Your task to perform on an android device: Look up the best rated gaming chair on Best Buy Image 0: 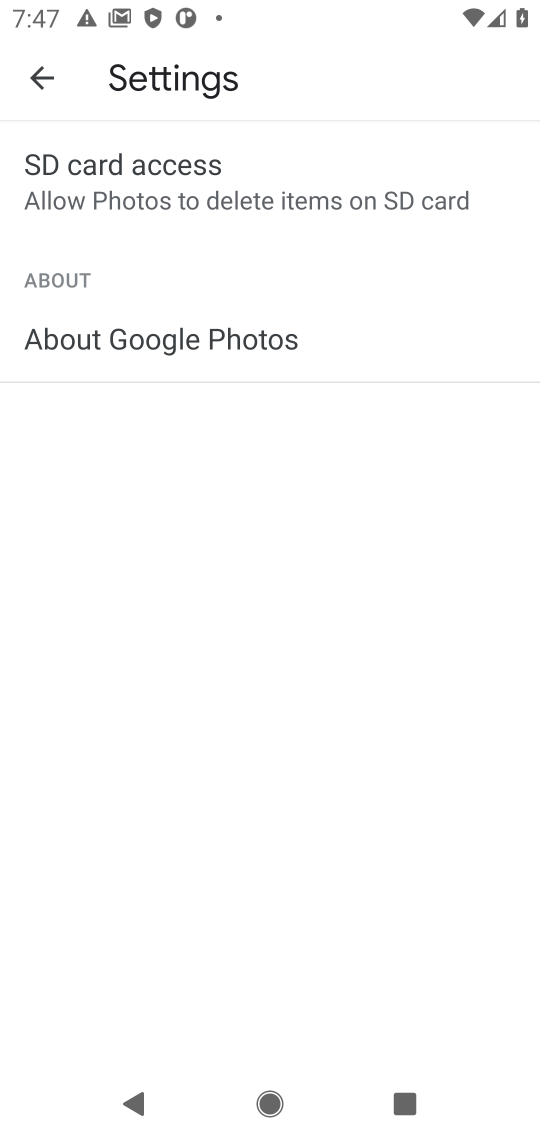
Step 0: press home button
Your task to perform on an android device: Look up the best rated gaming chair on Best Buy Image 1: 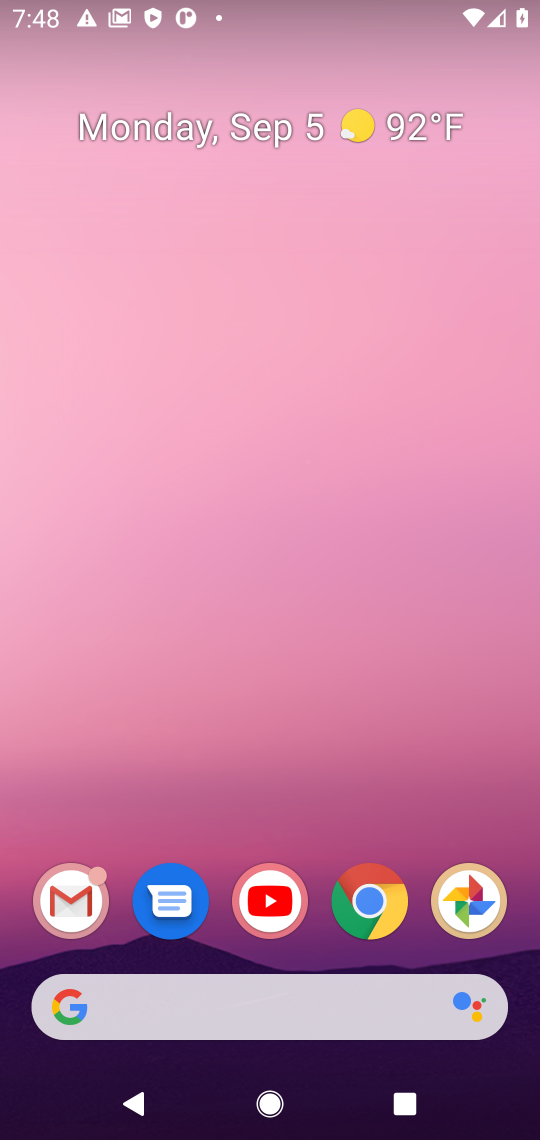
Step 1: click (345, 905)
Your task to perform on an android device: Look up the best rated gaming chair on Best Buy Image 2: 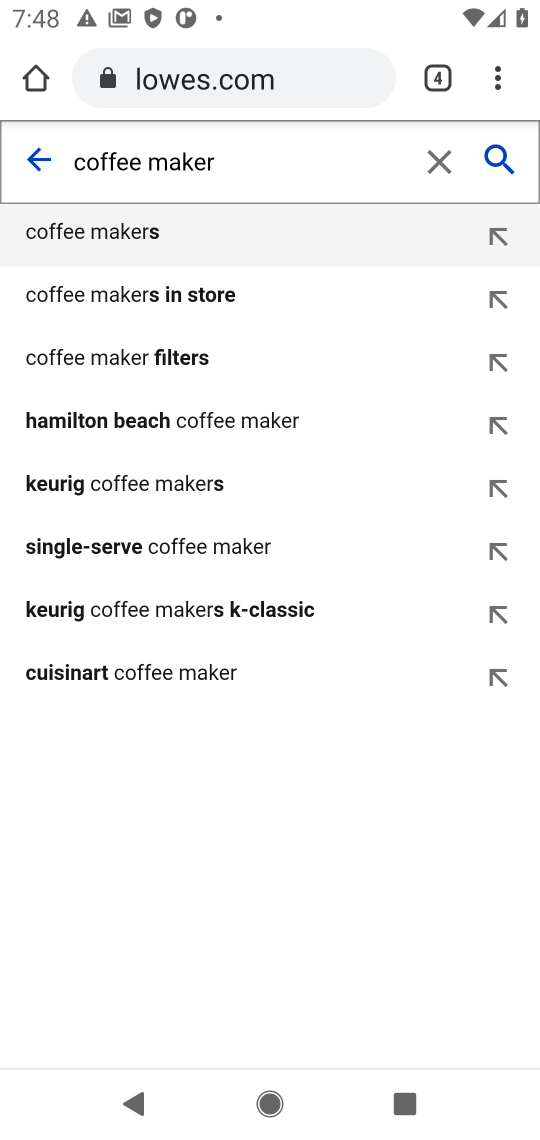
Step 2: click (376, 79)
Your task to perform on an android device: Look up the best rated gaming chair on Best Buy Image 3: 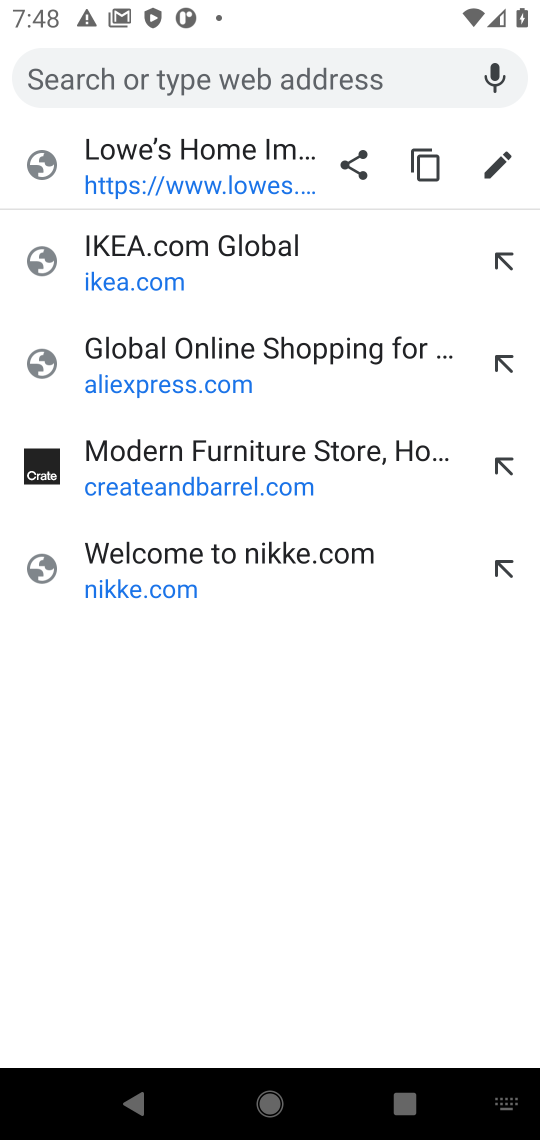
Step 3: type "best buy"
Your task to perform on an android device: Look up the best rated gaming chair on Best Buy Image 4: 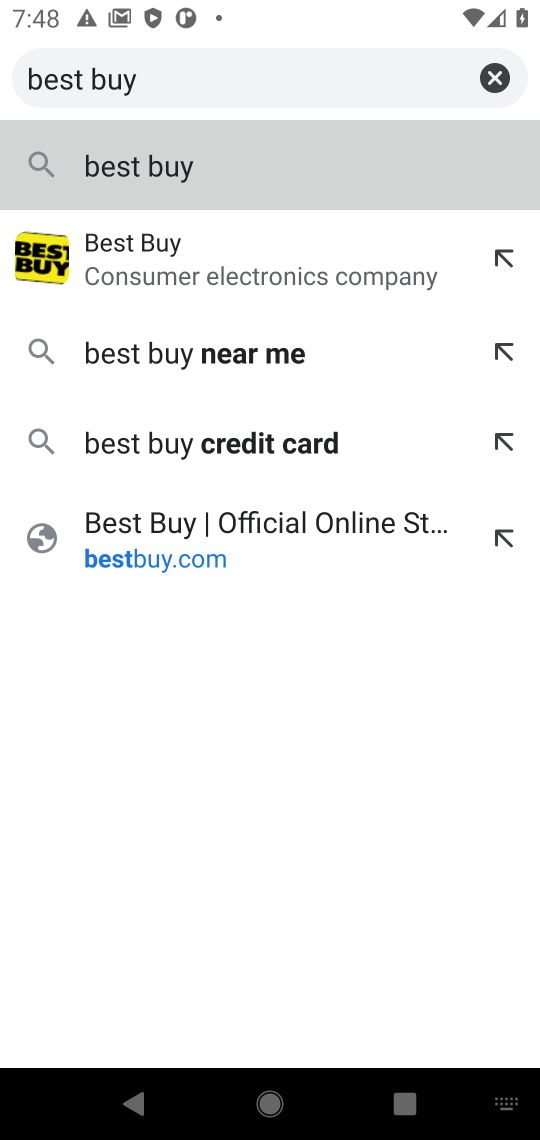
Step 4: click (216, 257)
Your task to perform on an android device: Look up the best rated gaming chair on Best Buy Image 5: 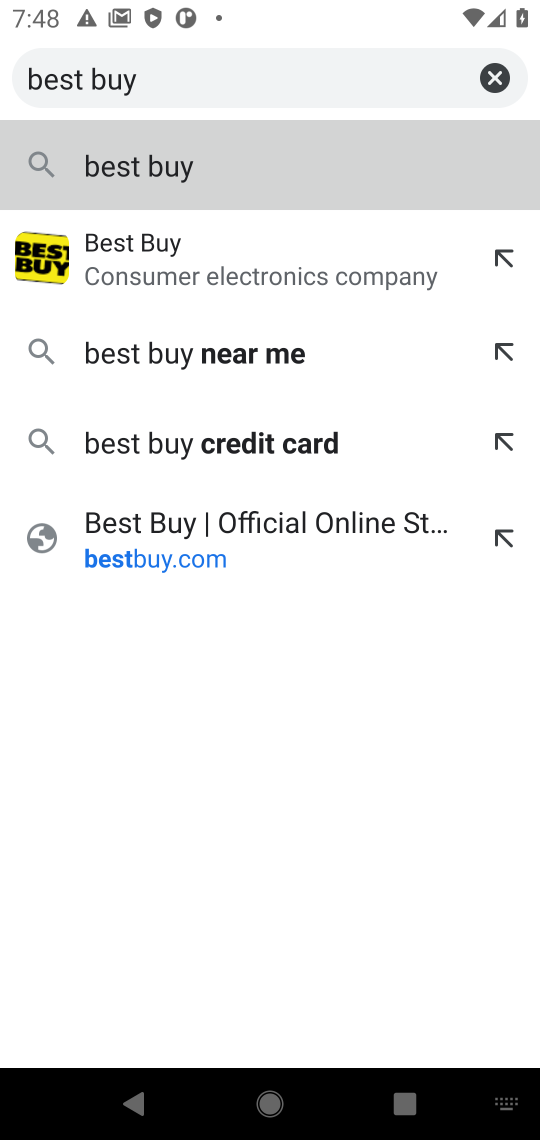
Step 5: click (216, 257)
Your task to perform on an android device: Look up the best rated gaming chair on Best Buy Image 6: 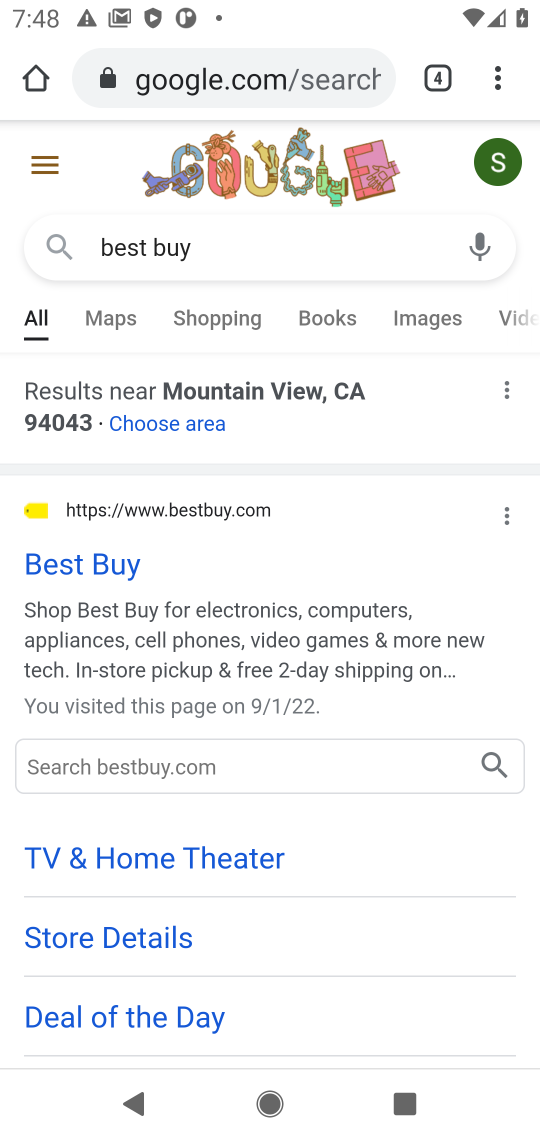
Step 6: click (135, 550)
Your task to perform on an android device: Look up the best rated gaming chair on Best Buy Image 7: 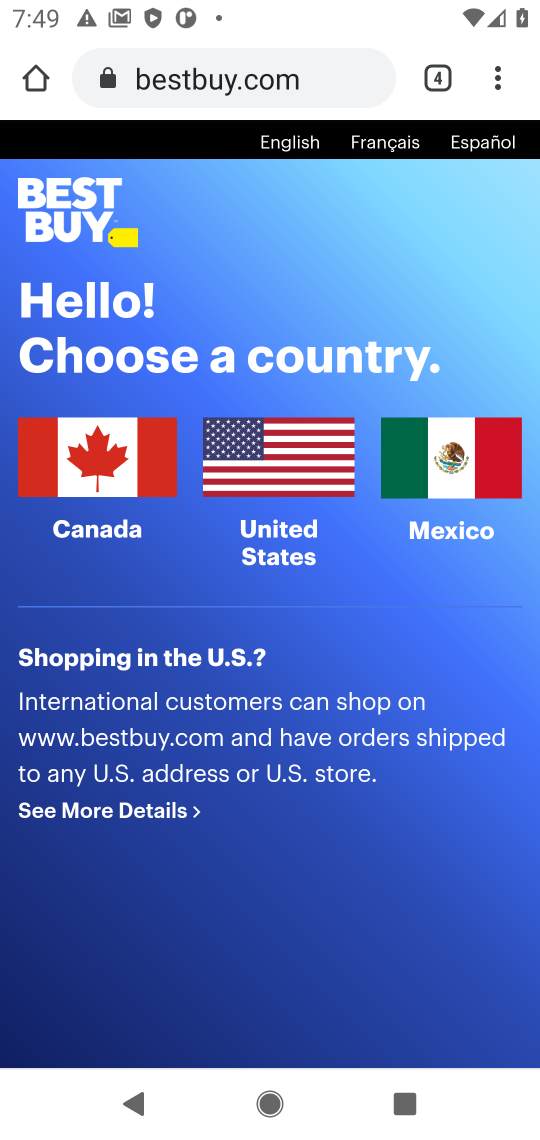
Step 7: click (290, 465)
Your task to perform on an android device: Look up the best rated gaming chair on Best Buy Image 8: 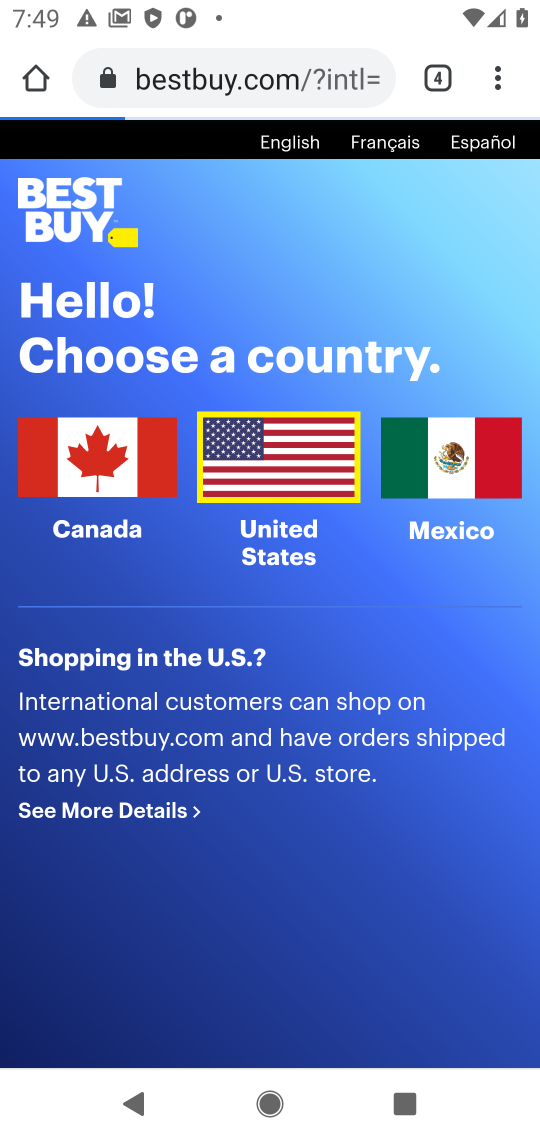
Step 8: click (283, 455)
Your task to perform on an android device: Look up the best rated gaming chair on Best Buy Image 9: 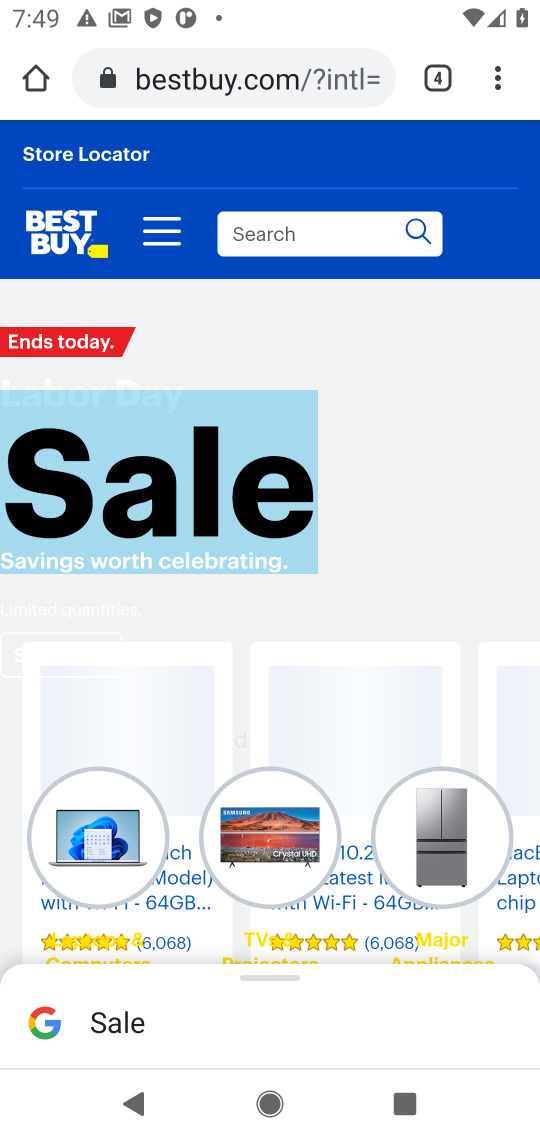
Step 9: click (309, 229)
Your task to perform on an android device: Look up the best rated gaming chair on Best Buy Image 10: 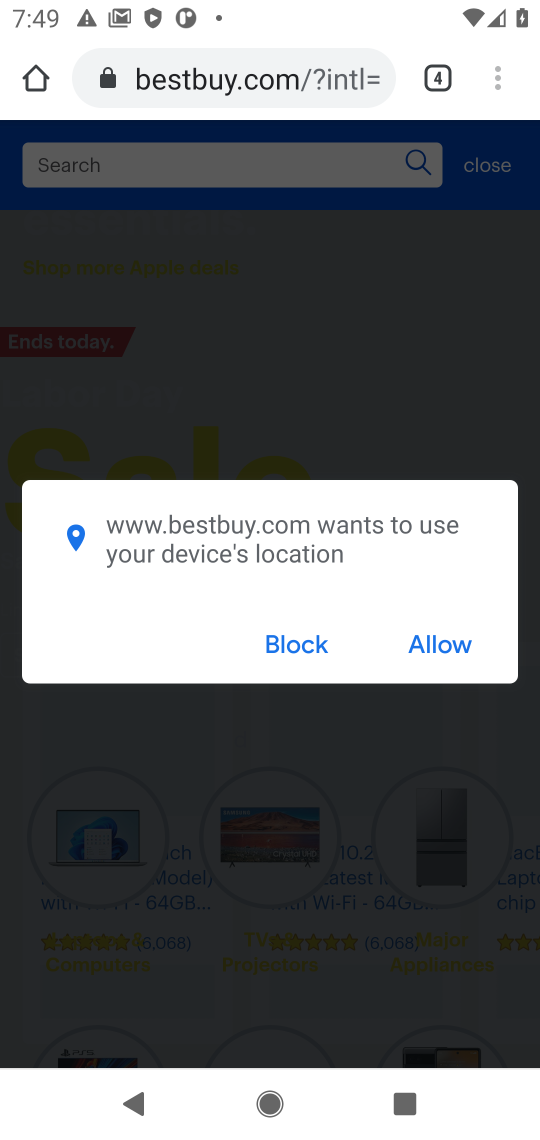
Step 10: type "gaming chair"
Your task to perform on an android device: Look up the best rated gaming chair on Best Buy Image 11: 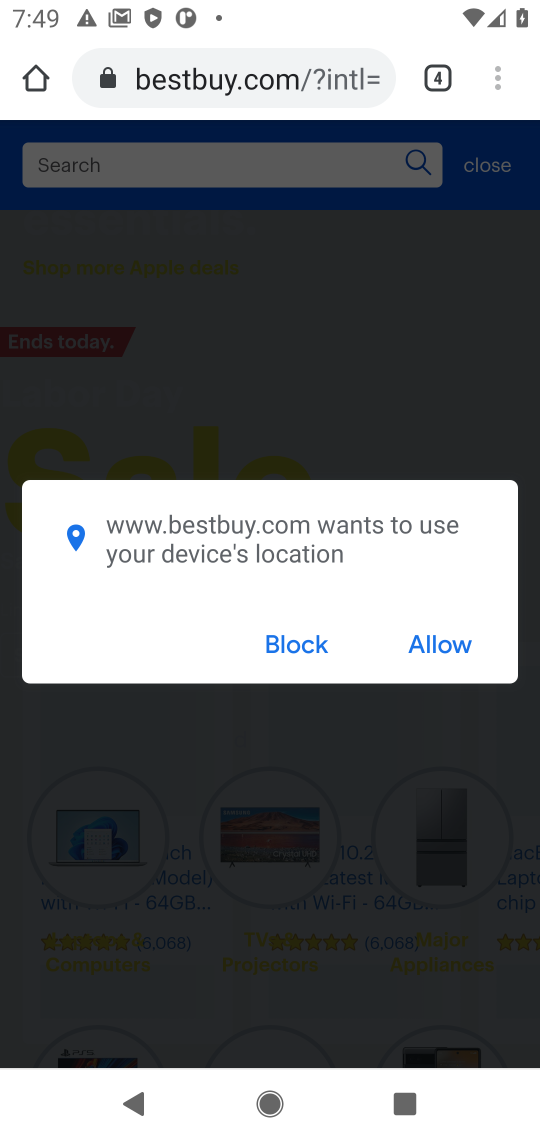
Step 11: click (419, 634)
Your task to perform on an android device: Look up the best rated gaming chair on Best Buy Image 12: 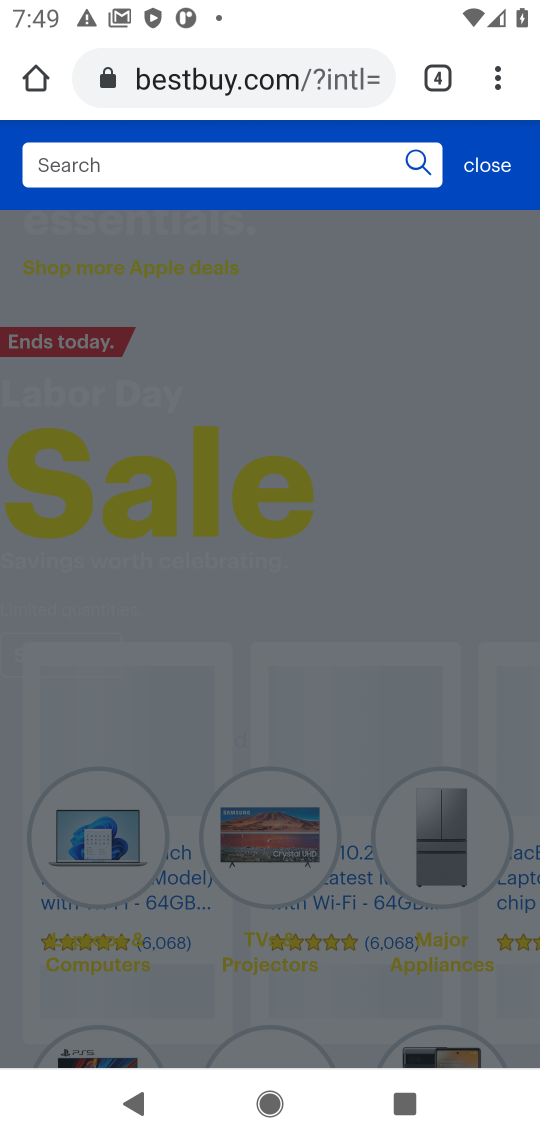
Step 12: click (259, 177)
Your task to perform on an android device: Look up the best rated gaming chair on Best Buy Image 13: 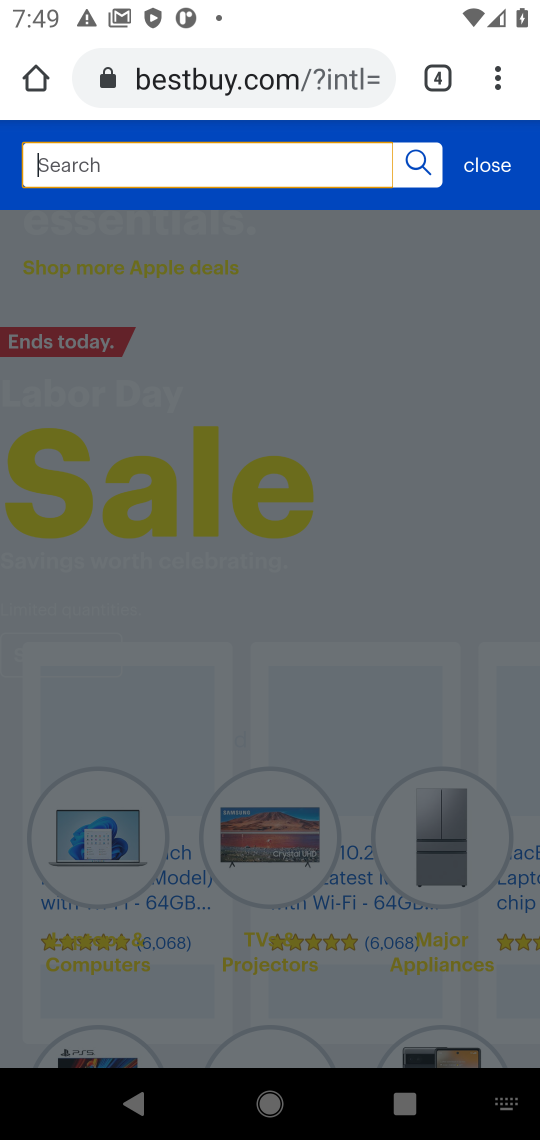
Step 13: type "gaming chair"
Your task to perform on an android device: Look up the best rated gaming chair on Best Buy Image 14: 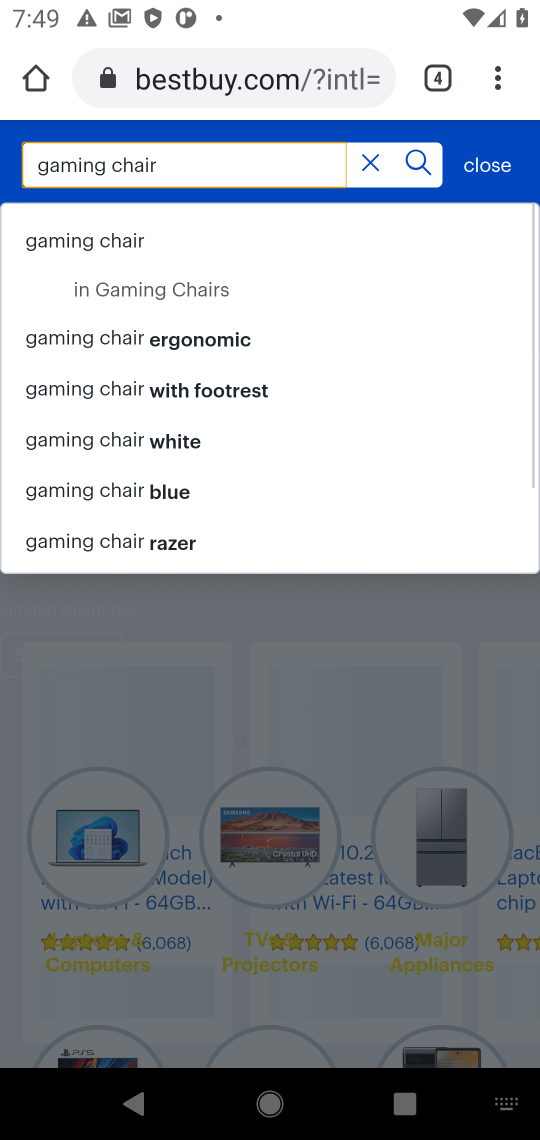
Step 14: click (389, 171)
Your task to perform on an android device: Look up the best rated gaming chair on Best Buy Image 15: 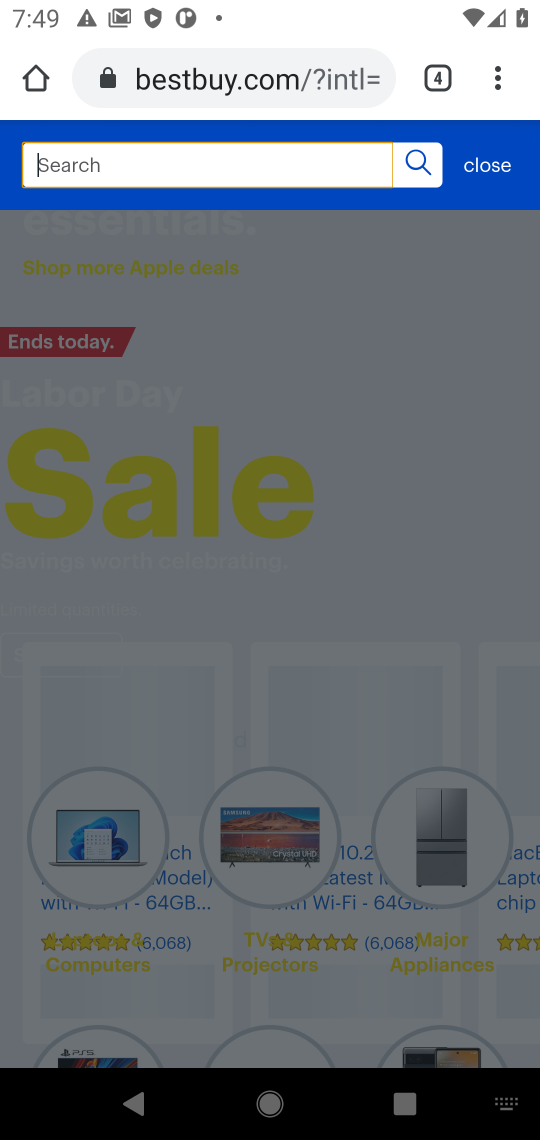
Step 15: click (307, 258)
Your task to perform on an android device: Look up the best rated gaming chair on Best Buy Image 16: 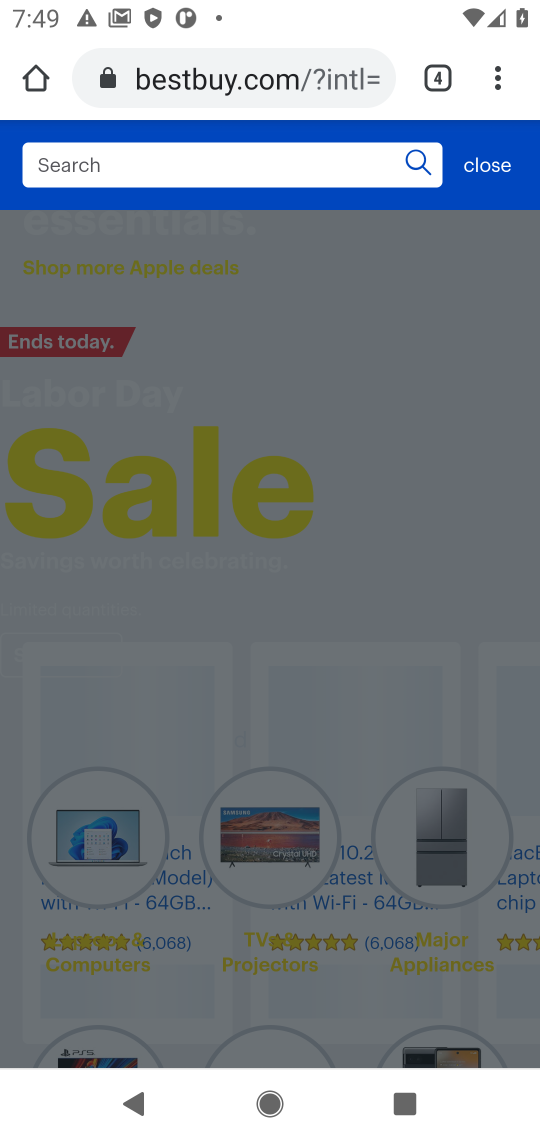
Step 16: task complete